Your task to perform on an android device: install app "Fetch Rewards" Image 0: 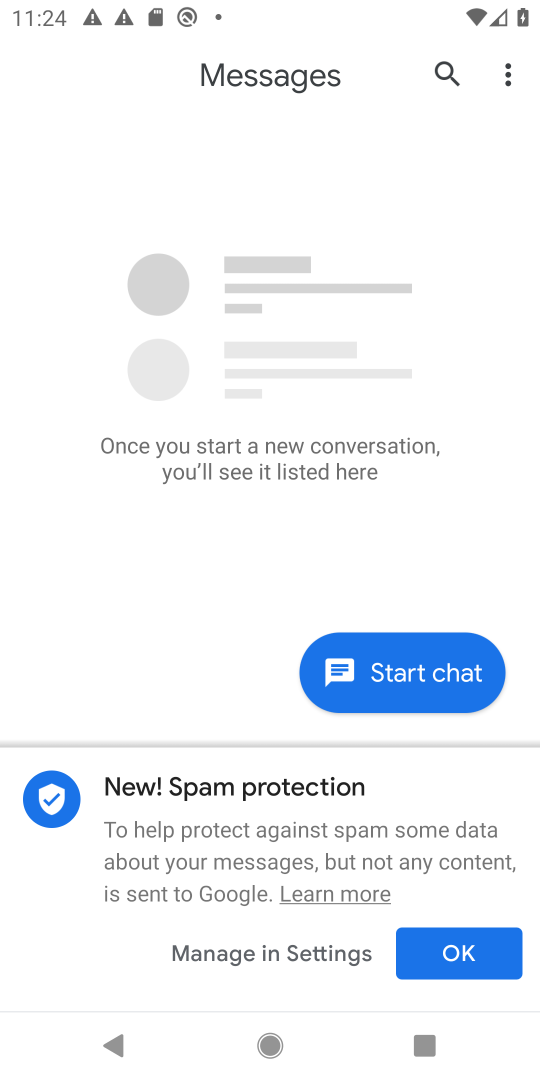
Step 0: drag from (273, 717) to (247, 181)
Your task to perform on an android device: install app "Fetch Rewards" Image 1: 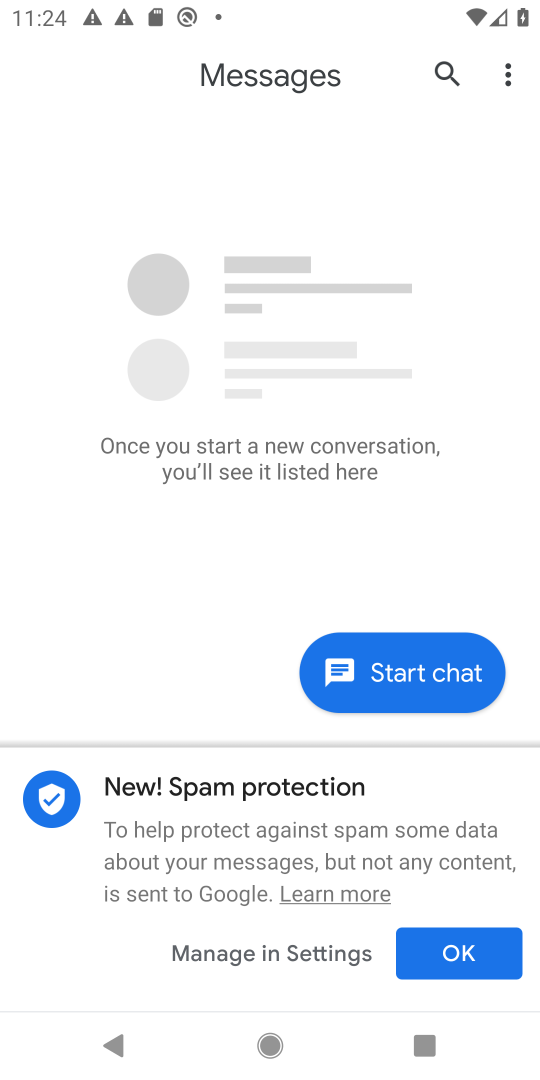
Step 1: drag from (272, 831) to (288, 205)
Your task to perform on an android device: install app "Fetch Rewards" Image 2: 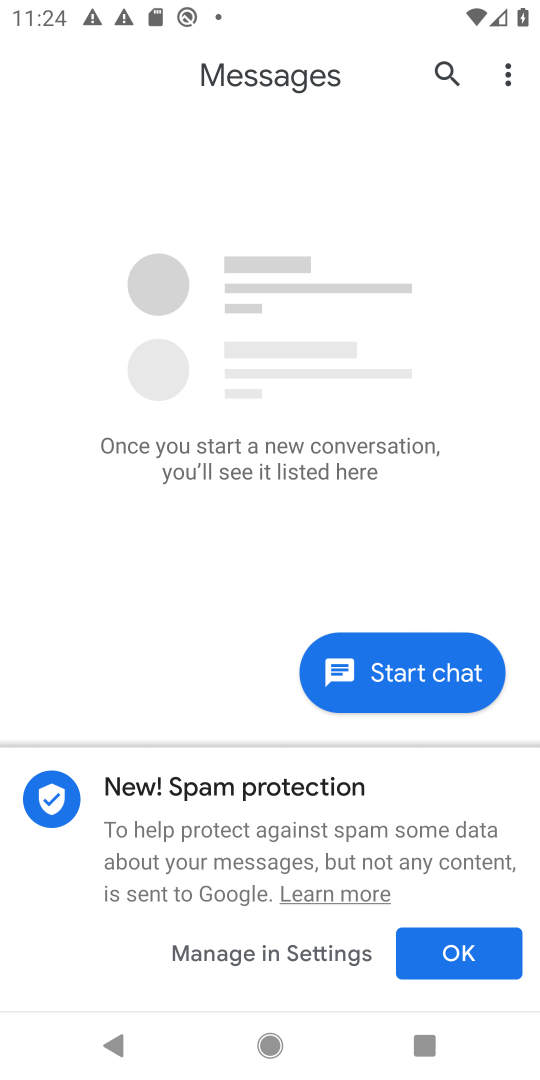
Step 2: press home button
Your task to perform on an android device: install app "Fetch Rewards" Image 3: 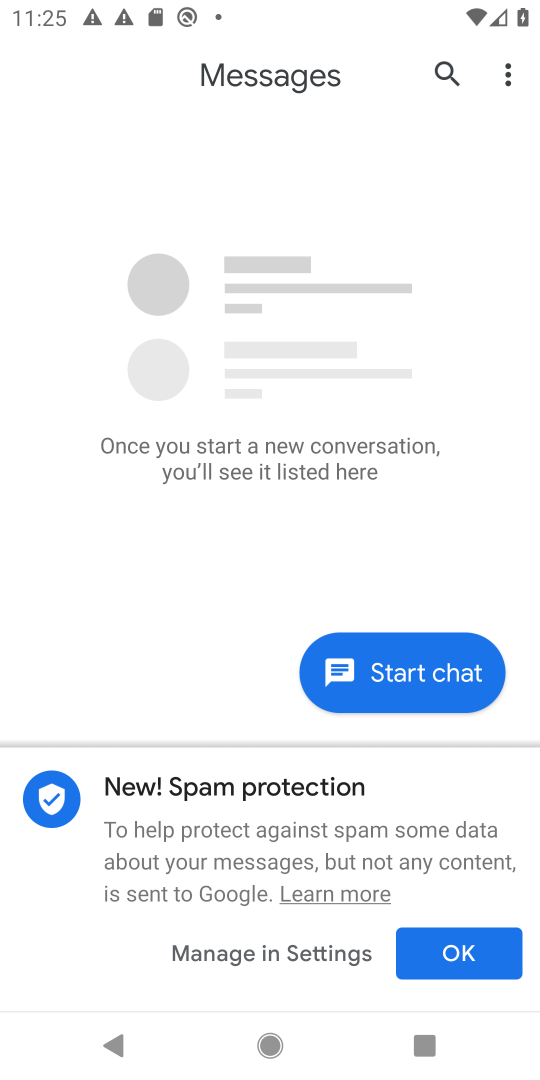
Step 3: drag from (229, 856) to (255, 183)
Your task to perform on an android device: install app "Fetch Rewards" Image 4: 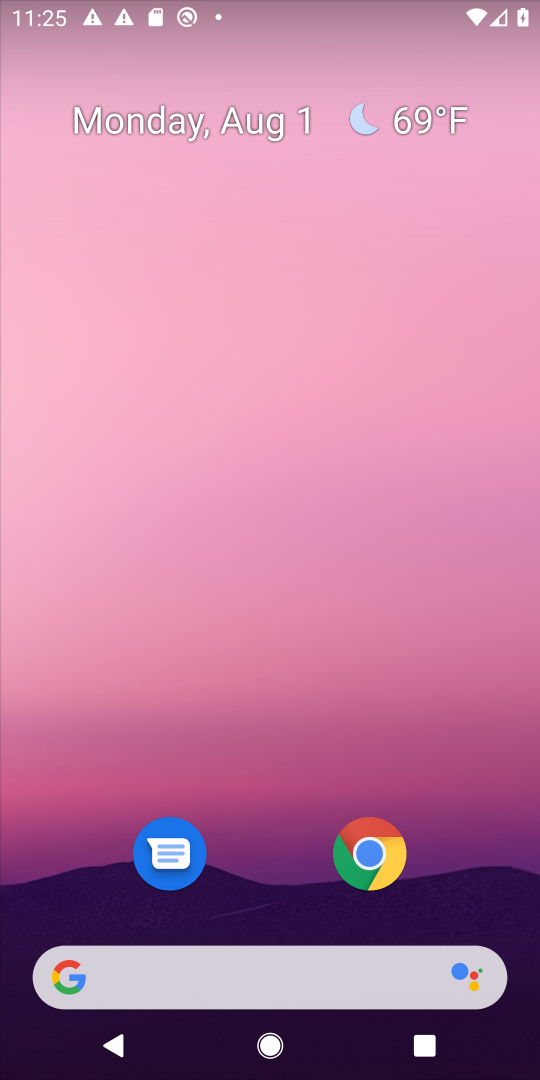
Step 4: drag from (268, 873) to (325, 168)
Your task to perform on an android device: install app "Fetch Rewards" Image 5: 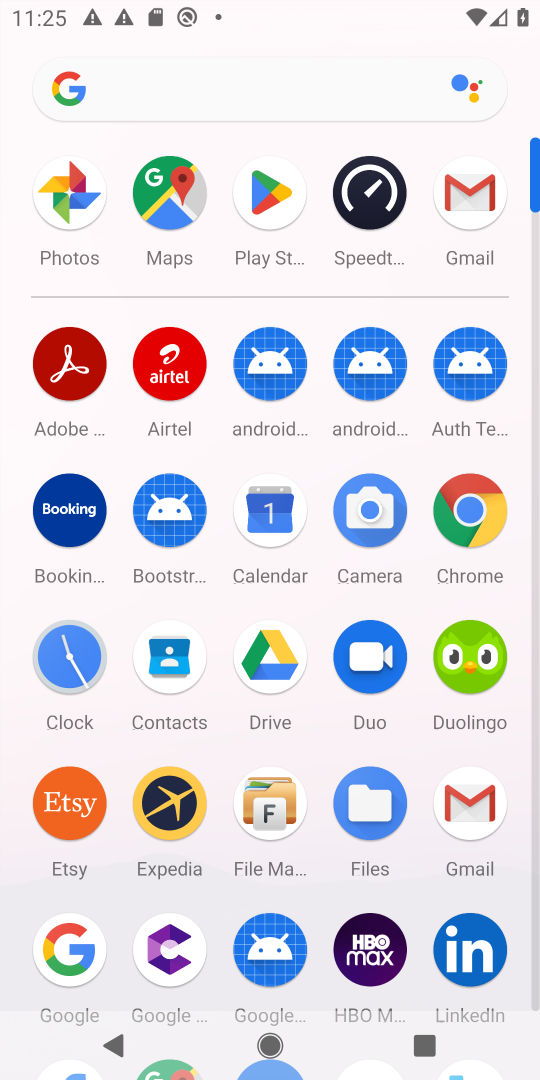
Step 5: click (247, 190)
Your task to perform on an android device: install app "Fetch Rewards" Image 6: 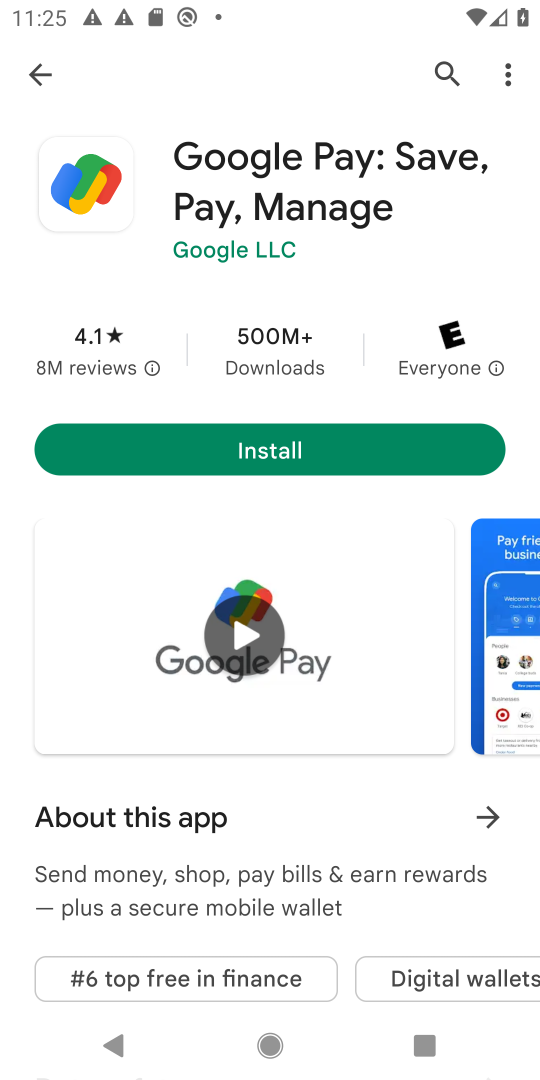
Step 6: drag from (354, 298) to (324, 847)
Your task to perform on an android device: install app "Fetch Rewards" Image 7: 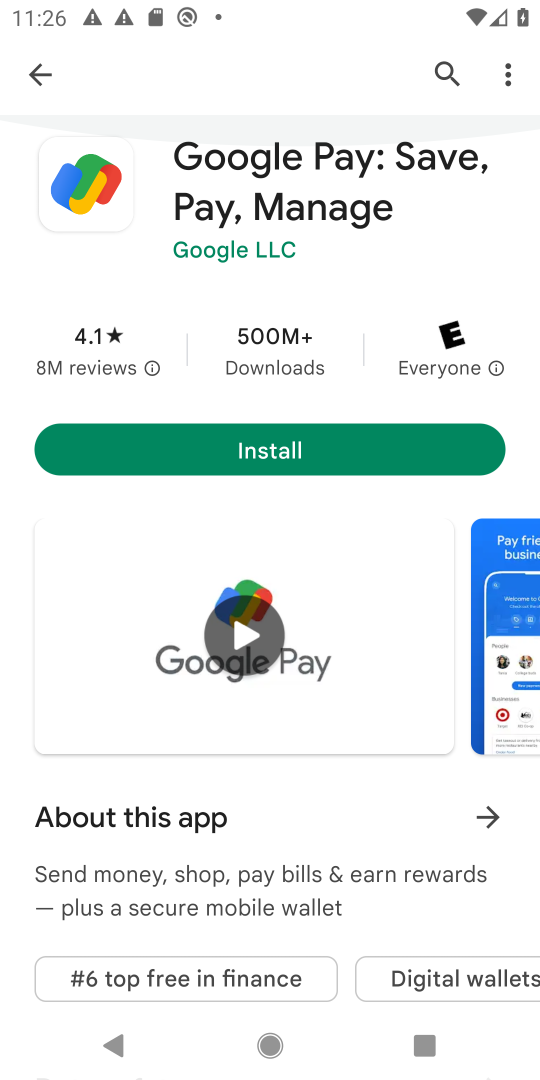
Step 7: drag from (338, 911) to (400, 361)
Your task to perform on an android device: install app "Fetch Rewards" Image 8: 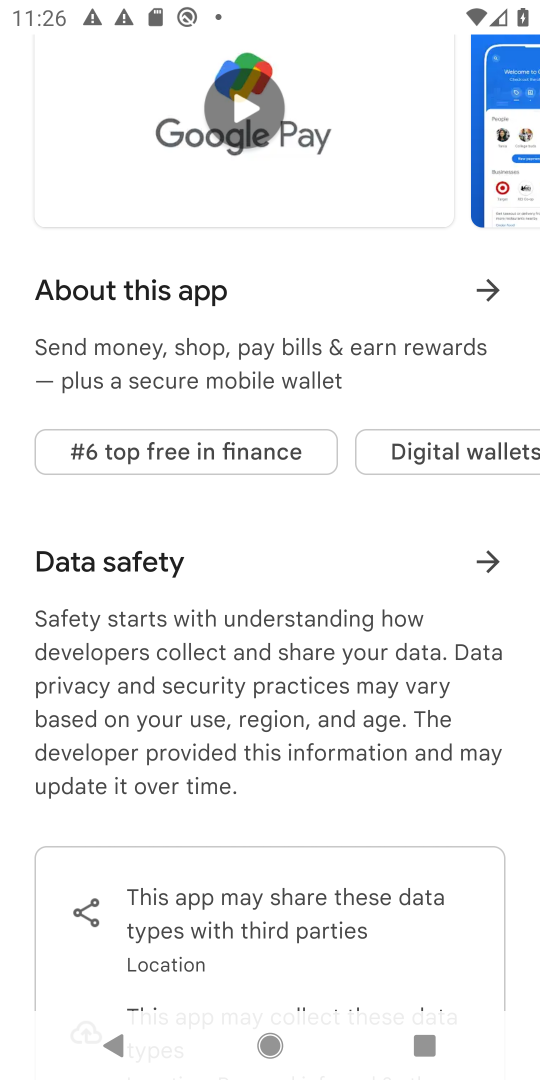
Step 8: drag from (343, 593) to (384, 1067)
Your task to perform on an android device: install app "Fetch Rewards" Image 9: 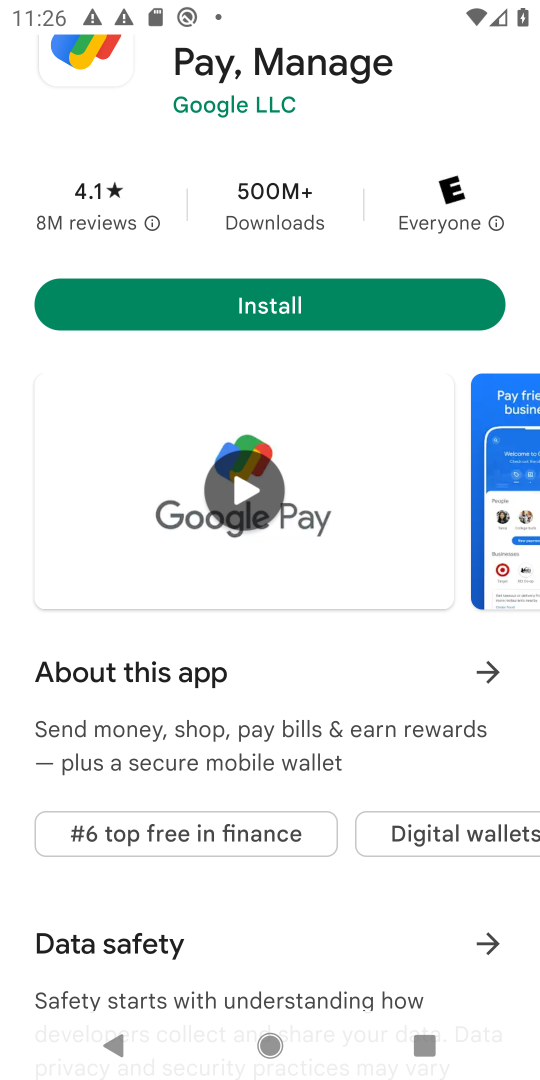
Step 9: drag from (371, 167) to (277, 761)
Your task to perform on an android device: install app "Fetch Rewards" Image 10: 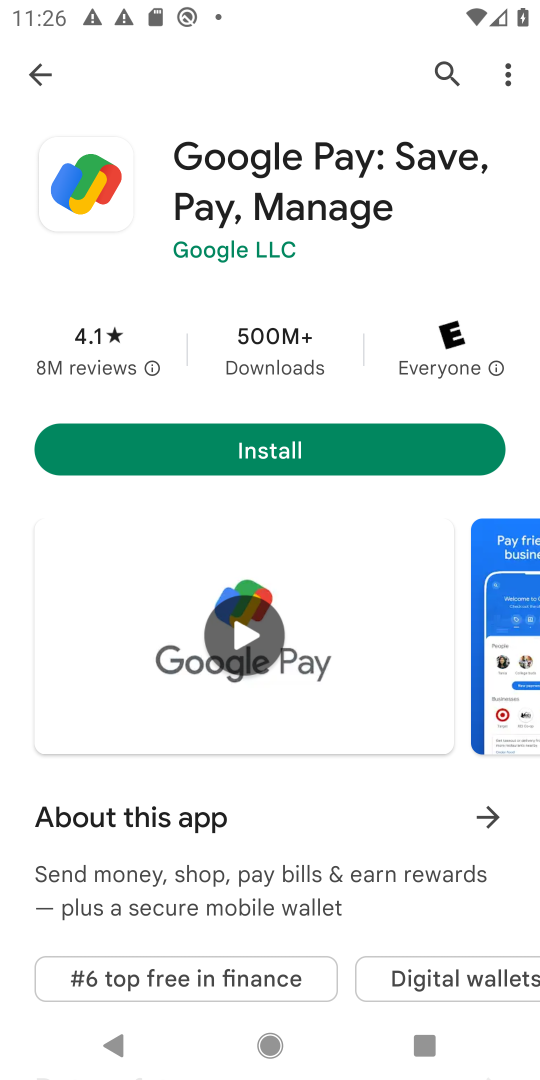
Step 10: click (443, 68)
Your task to perform on an android device: install app "Fetch Rewards" Image 11: 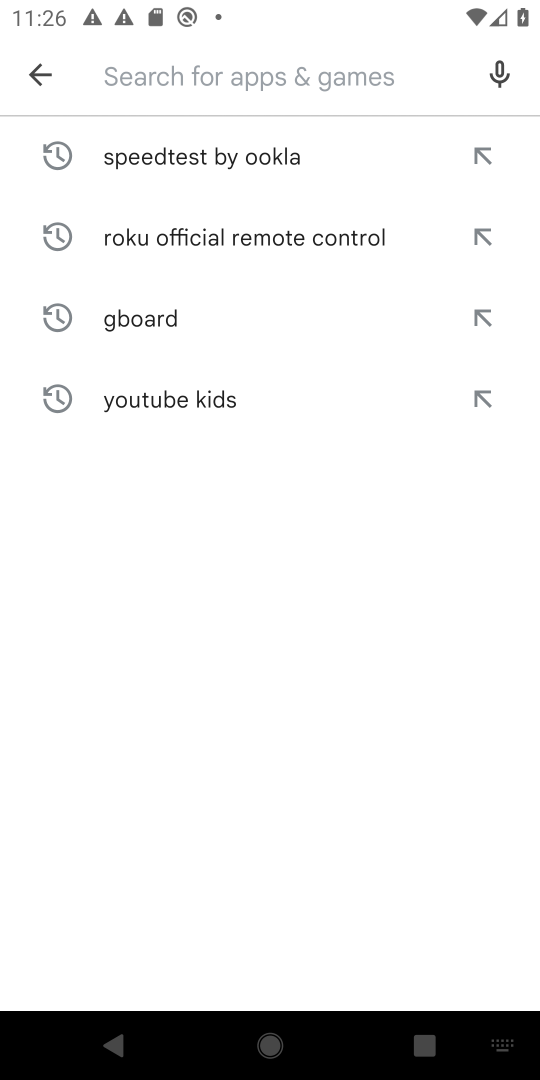
Step 11: type "Fetch Rewards"
Your task to perform on an android device: install app "Fetch Rewards" Image 12: 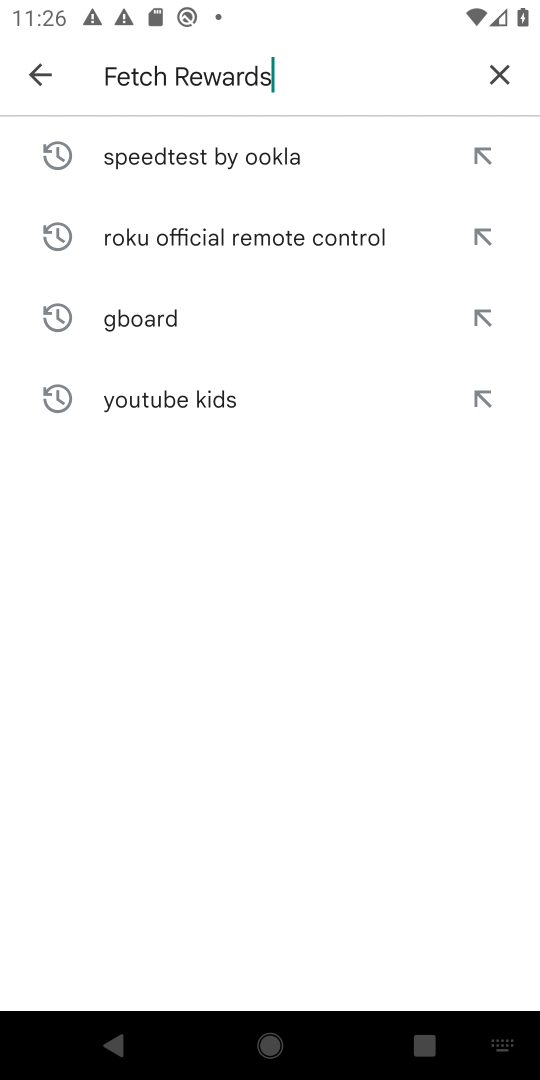
Step 12: type ""
Your task to perform on an android device: install app "Fetch Rewards" Image 13: 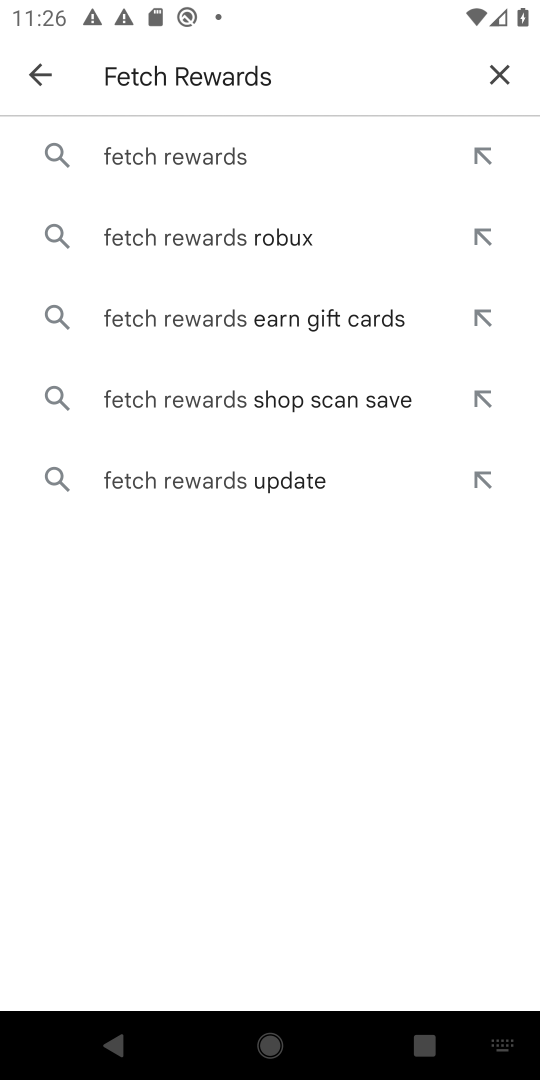
Step 13: click (173, 150)
Your task to perform on an android device: install app "Fetch Rewards" Image 14: 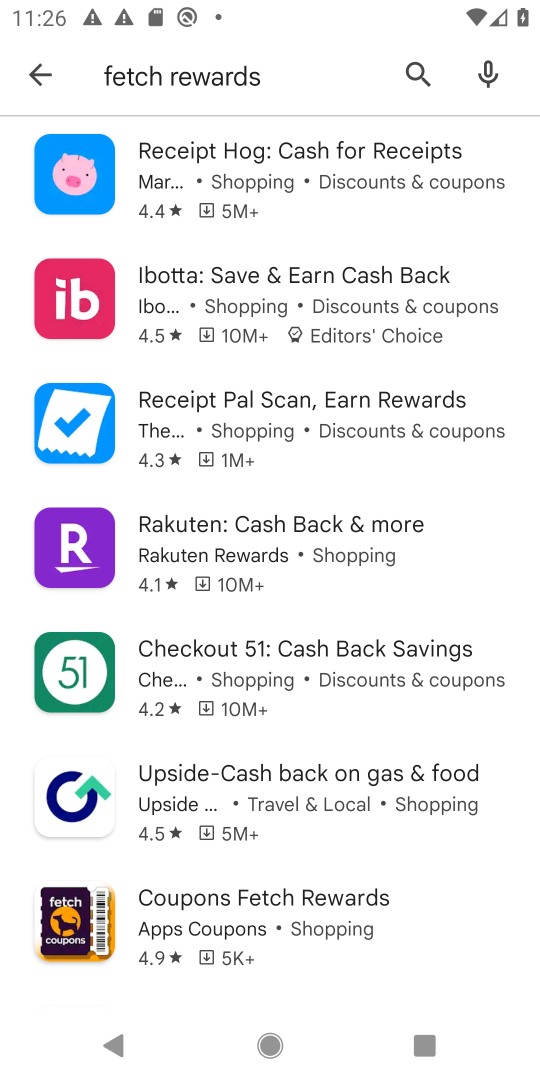
Step 14: task complete